Your task to perform on an android device: open app "Gmail" (install if not already installed) Image 0: 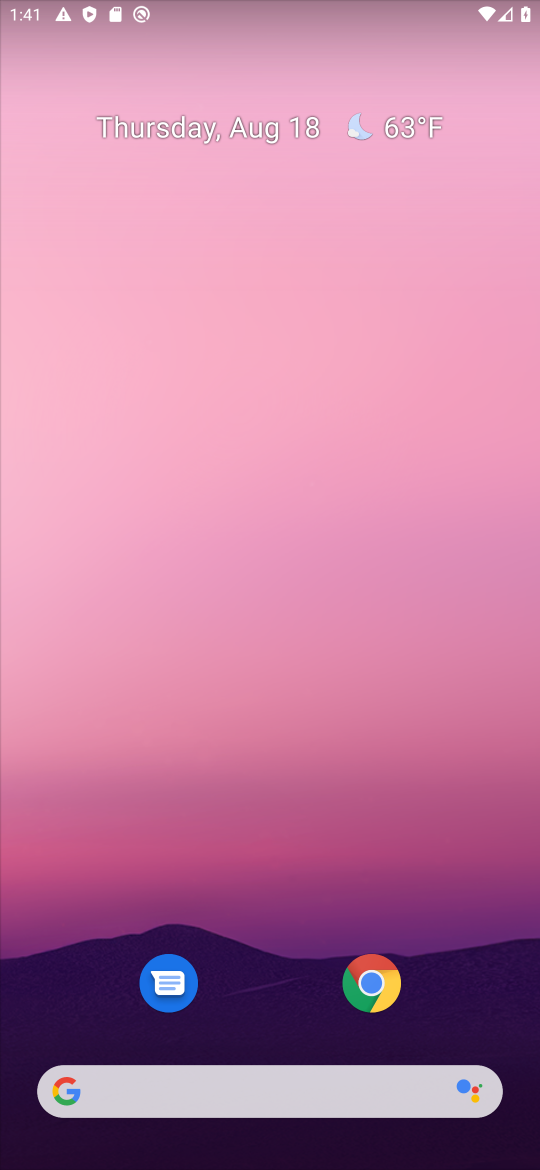
Step 0: drag from (298, 960) to (166, 217)
Your task to perform on an android device: open app "Gmail" (install if not already installed) Image 1: 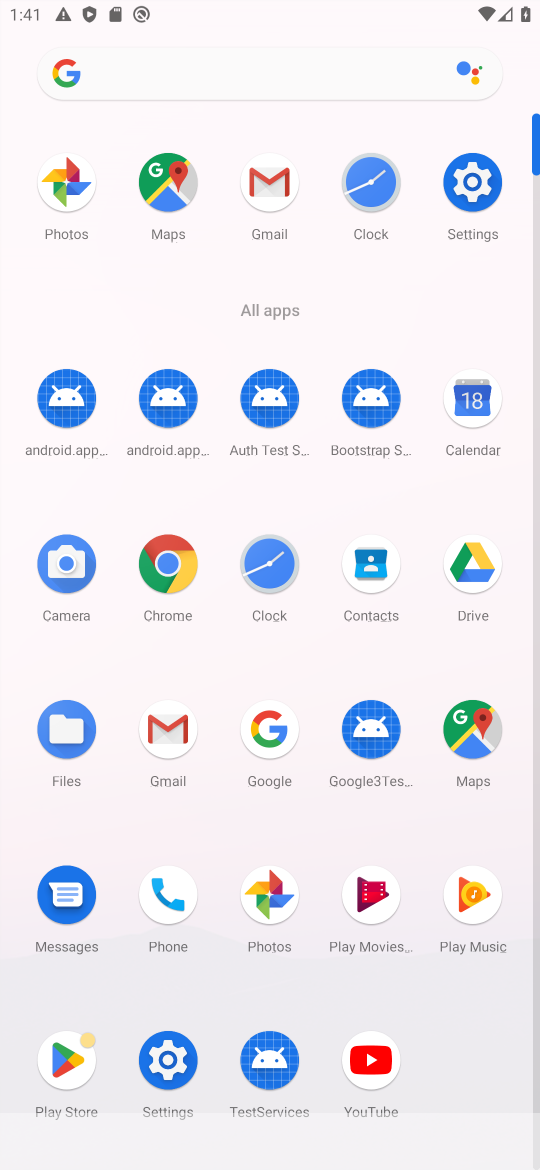
Step 1: click (168, 734)
Your task to perform on an android device: open app "Gmail" (install if not already installed) Image 2: 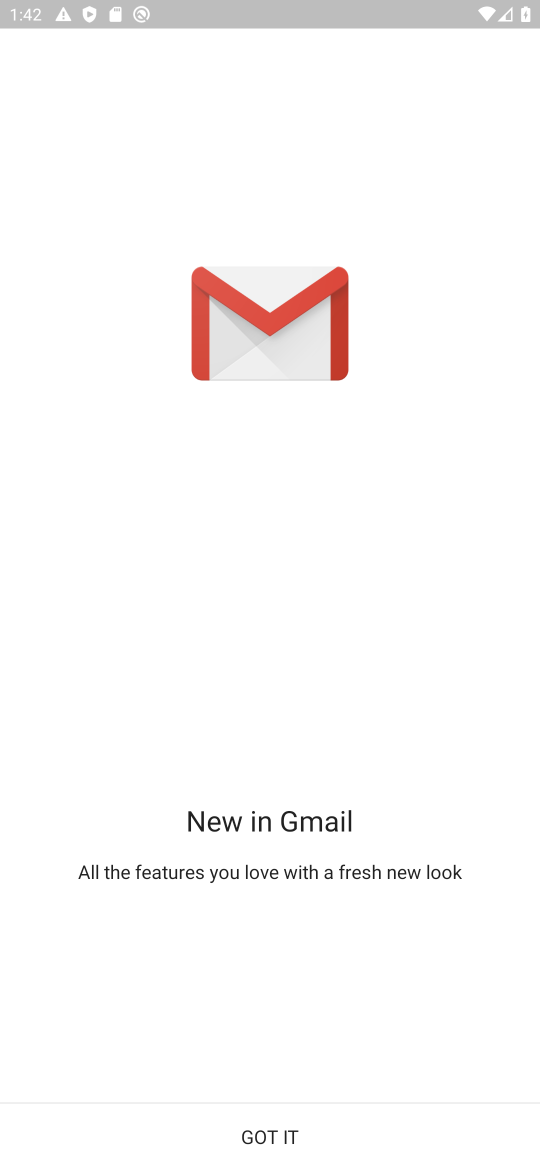
Step 2: click (264, 1114)
Your task to perform on an android device: open app "Gmail" (install if not already installed) Image 3: 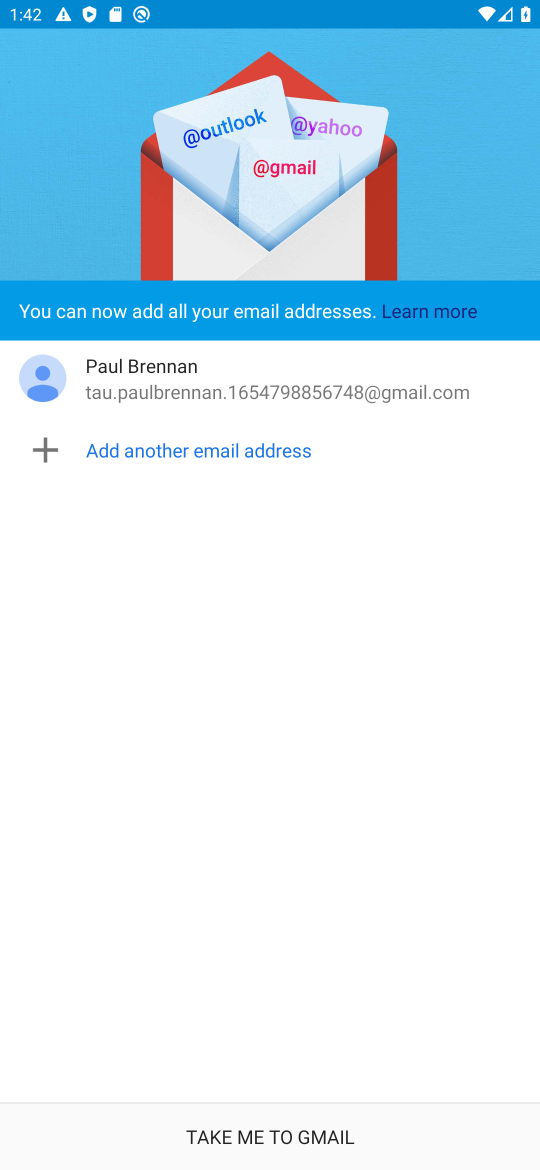
Step 3: click (264, 1114)
Your task to perform on an android device: open app "Gmail" (install if not already installed) Image 4: 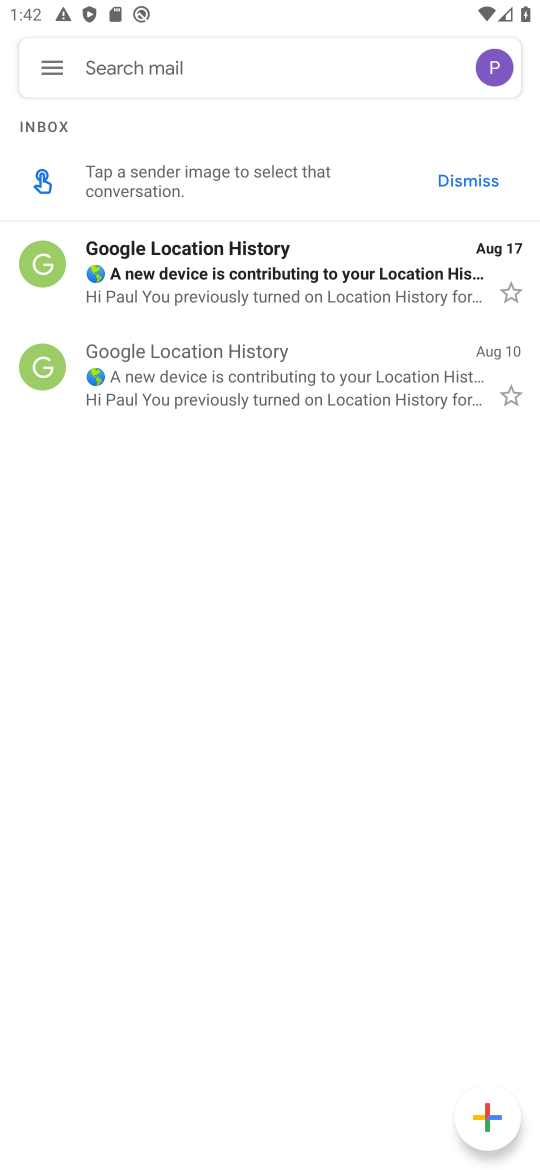
Step 4: task complete